Your task to perform on an android device: open device folders in google photos Image 0: 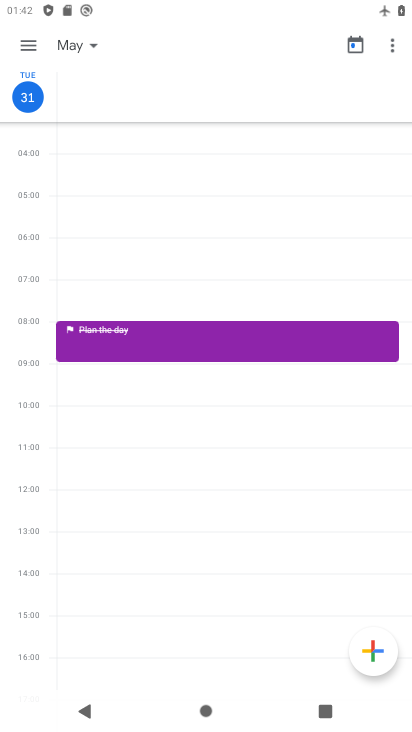
Step 0: press home button
Your task to perform on an android device: open device folders in google photos Image 1: 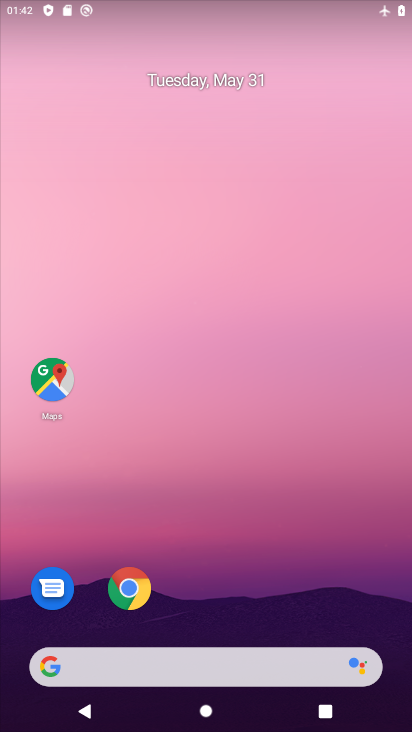
Step 1: drag from (358, 607) to (356, 218)
Your task to perform on an android device: open device folders in google photos Image 2: 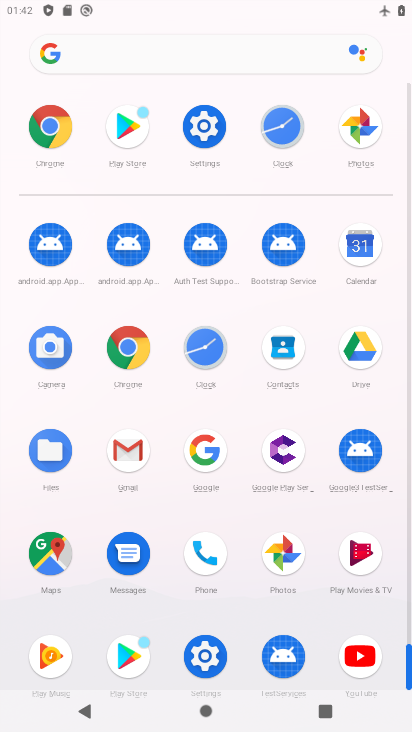
Step 2: click (297, 554)
Your task to perform on an android device: open device folders in google photos Image 3: 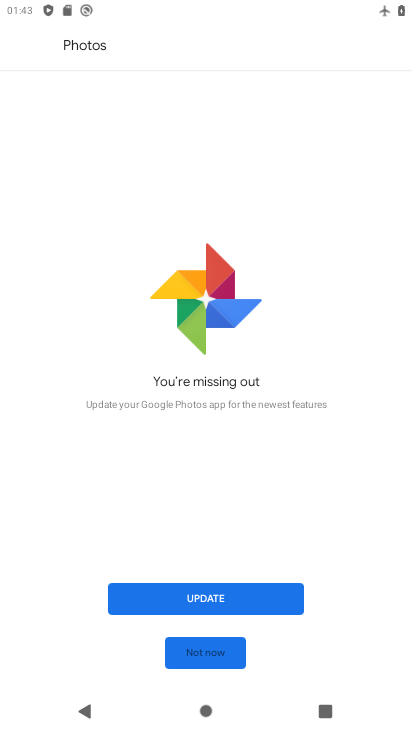
Step 3: click (258, 608)
Your task to perform on an android device: open device folders in google photos Image 4: 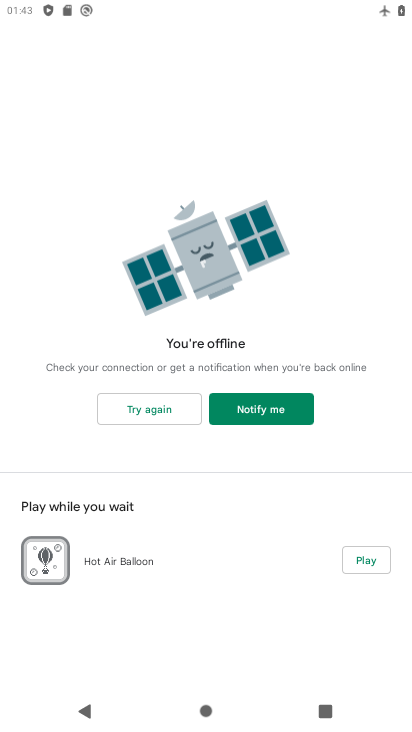
Step 4: task complete